Your task to perform on an android device: turn notification dots off Image 0: 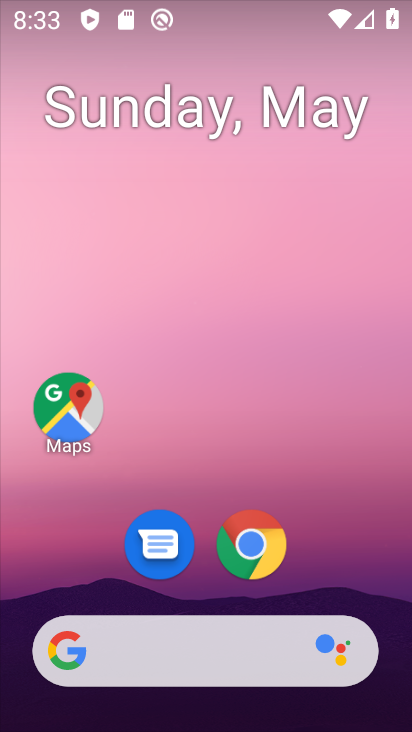
Step 0: drag from (351, 520) to (192, 4)
Your task to perform on an android device: turn notification dots off Image 1: 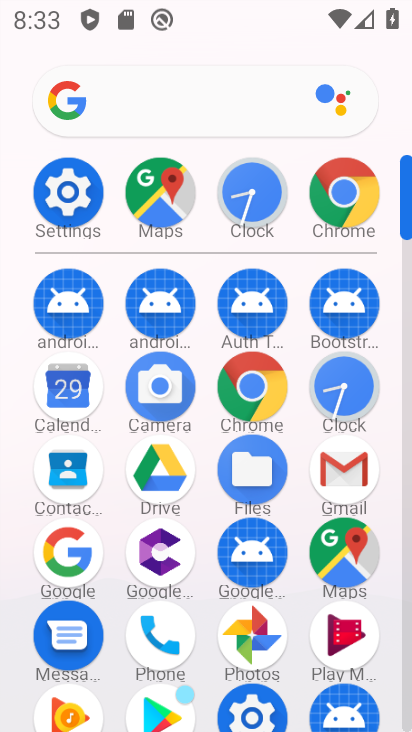
Step 1: click (79, 174)
Your task to perform on an android device: turn notification dots off Image 2: 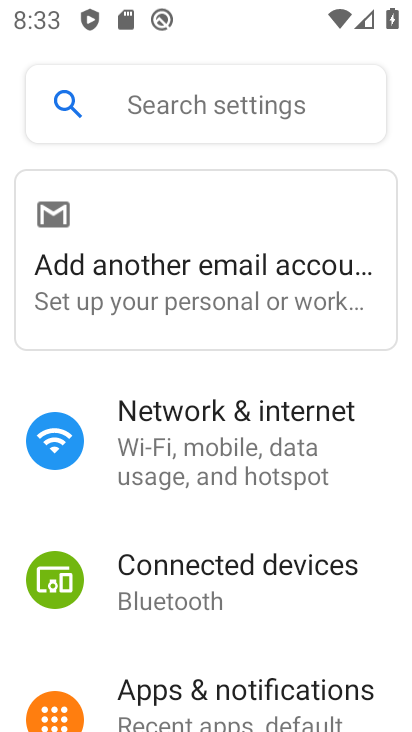
Step 2: drag from (309, 662) to (306, 306)
Your task to perform on an android device: turn notification dots off Image 3: 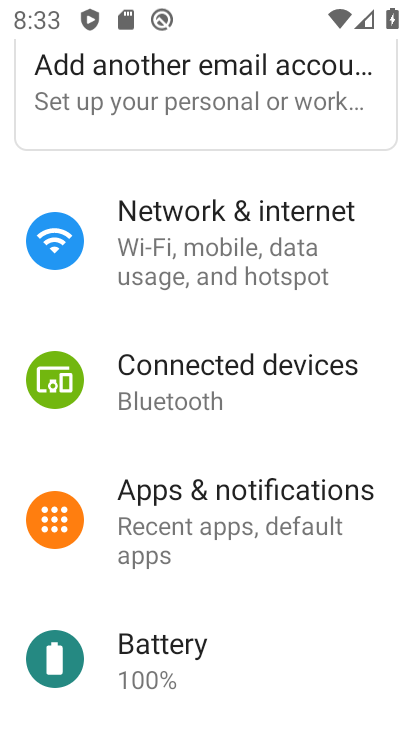
Step 3: click (287, 518)
Your task to perform on an android device: turn notification dots off Image 4: 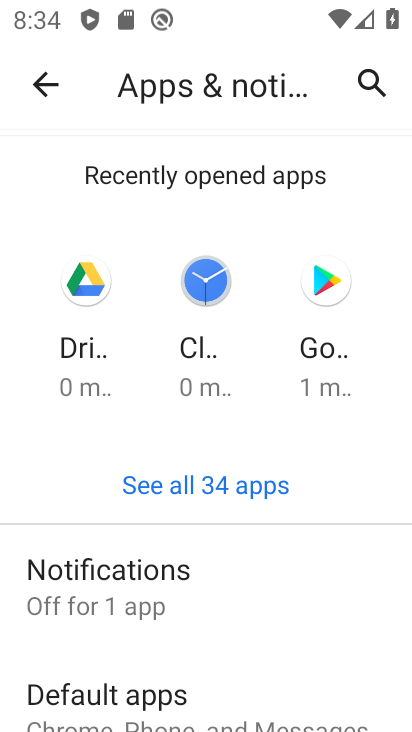
Step 4: click (159, 593)
Your task to perform on an android device: turn notification dots off Image 5: 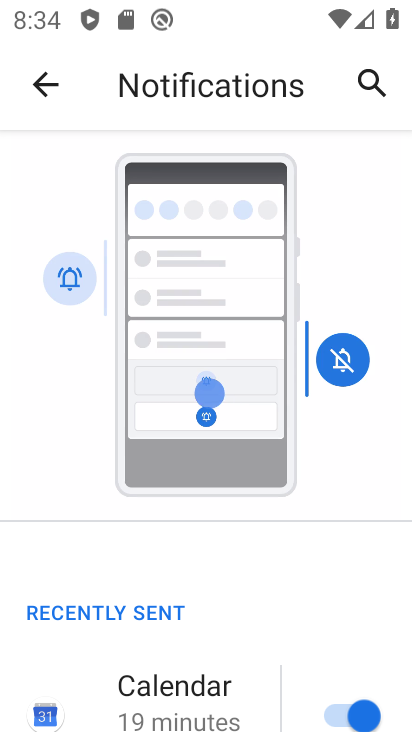
Step 5: drag from (205, 634) to (225, 191)
Your task to perform on an android device: turn notification dots off Image 6: 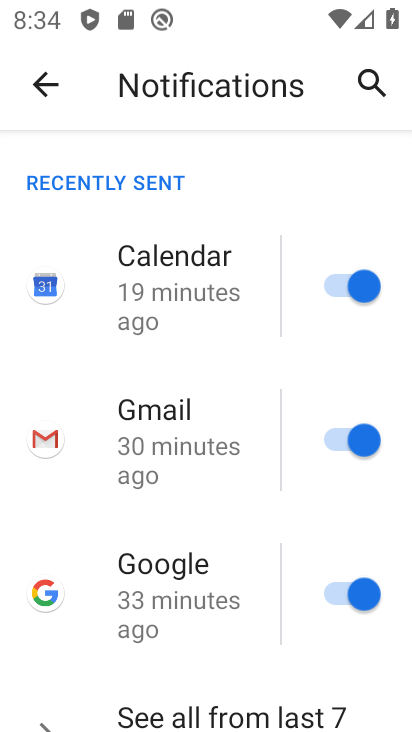
Step 6: drag from (191, 612) to (259, 208)
Your task to perform on an android device: turn notification dots off Image 7: 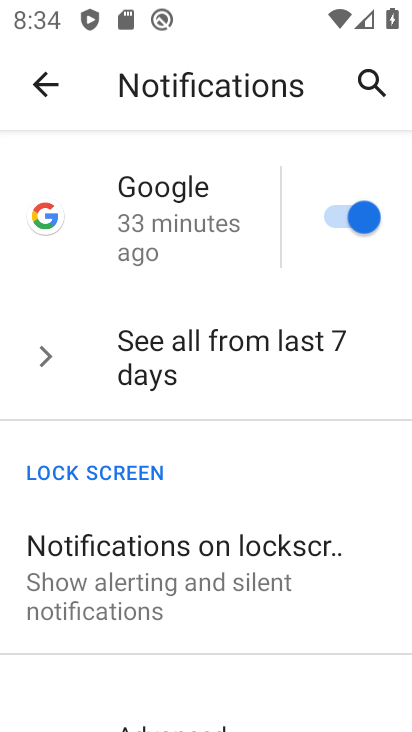
Step 7: click (263, 591)
Your task to perform on an android device: turn notification dots off Image 8: 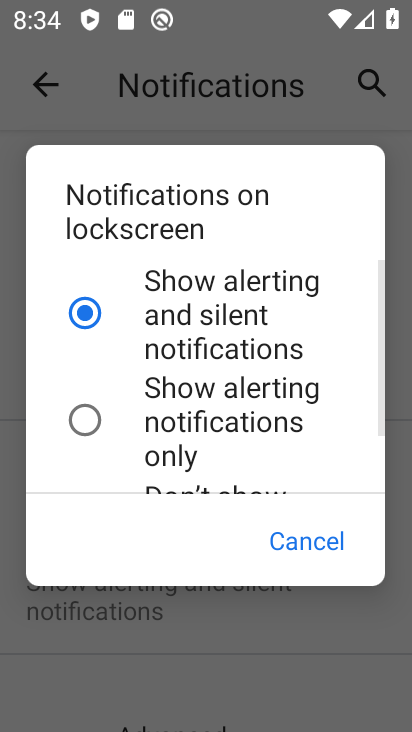
Step 8: click (303, 543)
Your task to perform on an android device: turn notification dots off Image 9: 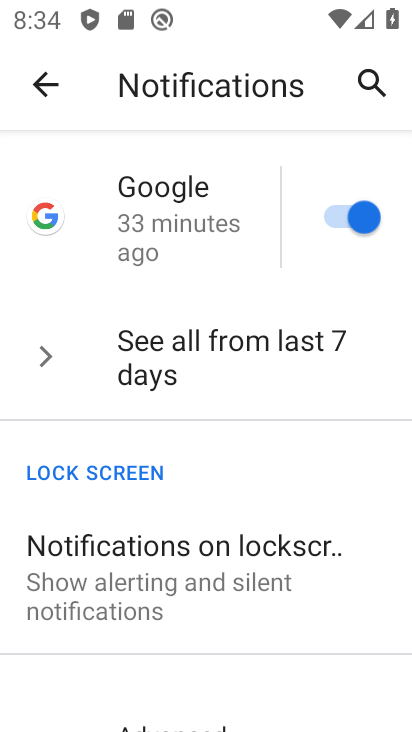
Step 9: drag from (213, 696) to (276, 312)
Your task to perform on an android device: turn notification dots off Image 10: 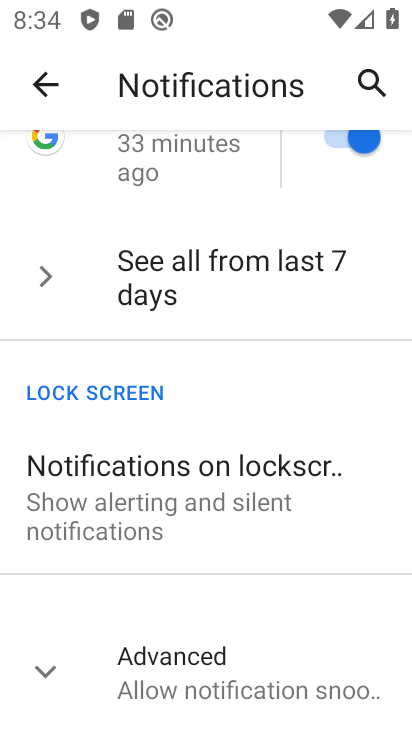
Step 10: click (249, 656)
Your task to perform on an android device: turn notification dots off Image 11: 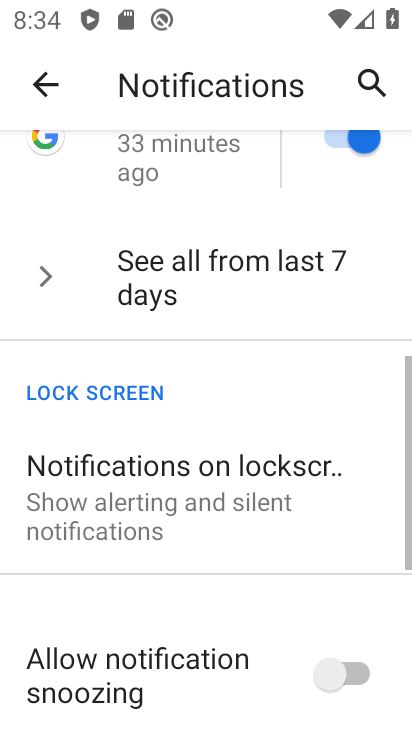
Step 11: drag from (249, 645) to (266, 305)
Your task to perform on an android device: turn notification dots off Image 12: 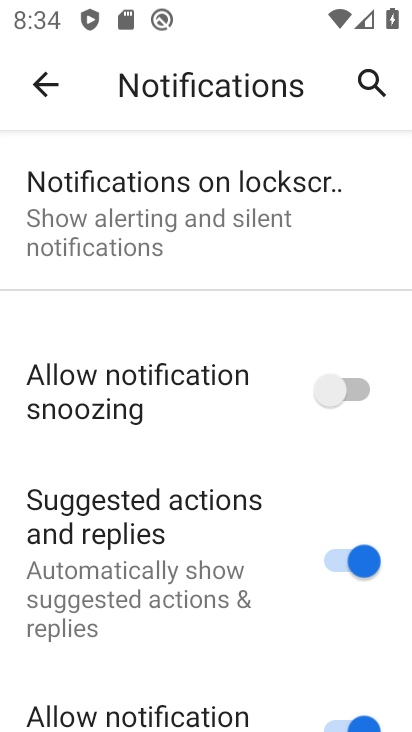
Step 12: drag from (259, 627) to (332, 259)
Your task to perform on an android device: turn notification dots off Image 13: 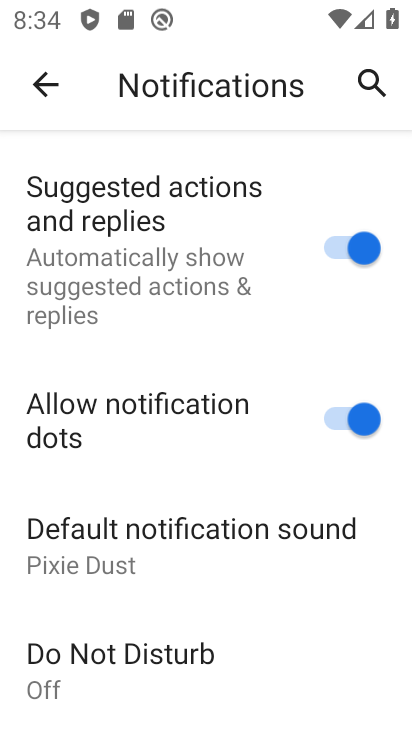
Step 13: click (344, 423)
Your task to perform on an android device: turn notification dots off Image 14: 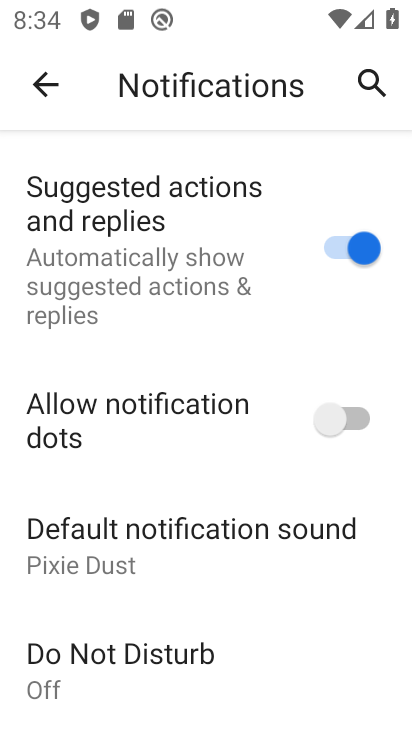
Step 14: task complete